Your task to perform on an android device: When is my next meeting? Image 0: 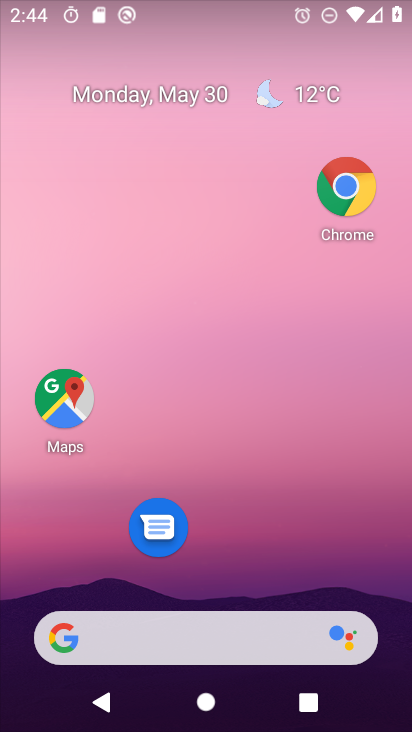
Step 0: drag from (221, 525) to (262, 270)
Your task to perform on an android device: When is my next meeting? Image 1: 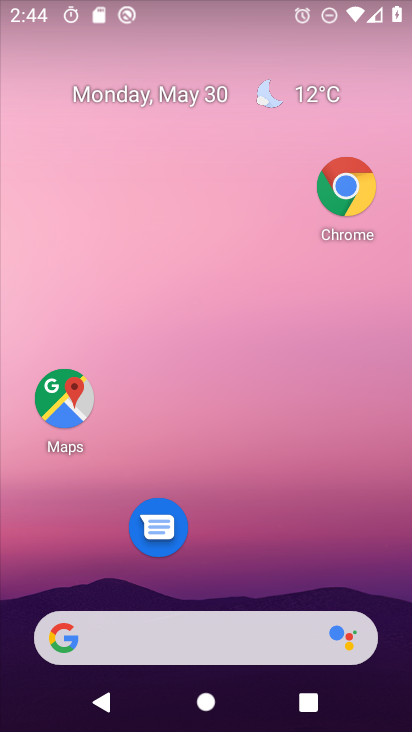
Step 1: drag from (221, 572) to (228, 355)
Your task to perform on an android device: When is my next meeting? Image 2: 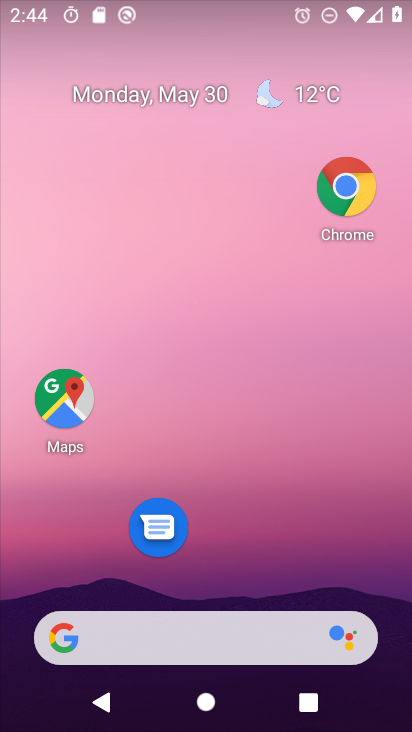
Step 2: drag from (241, 544) to (271, 84)
Your task to perform on an android device: When is my next meeting? Image 3: 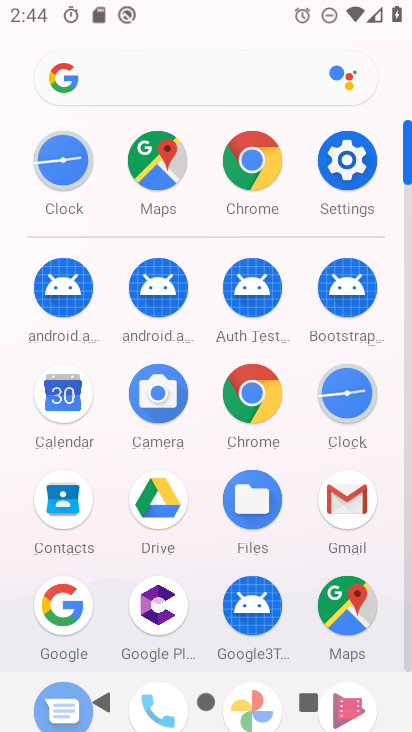
Step 3: click (68, 375)
Your task to perform on an android device: When is my next meeting? Image 4: 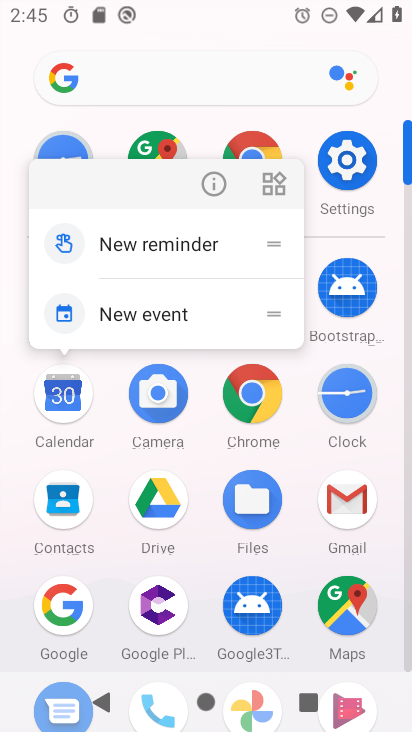
Step 4: click (209, 190)
Your task to perform on an android device: When is my next meeting? Image 5: 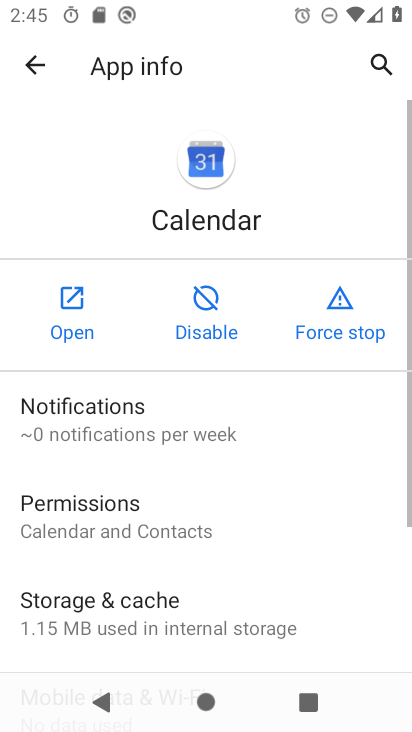
Step 5: click (79, 307)
Your task to perform on an android device: When is my next meeting? Image 6: 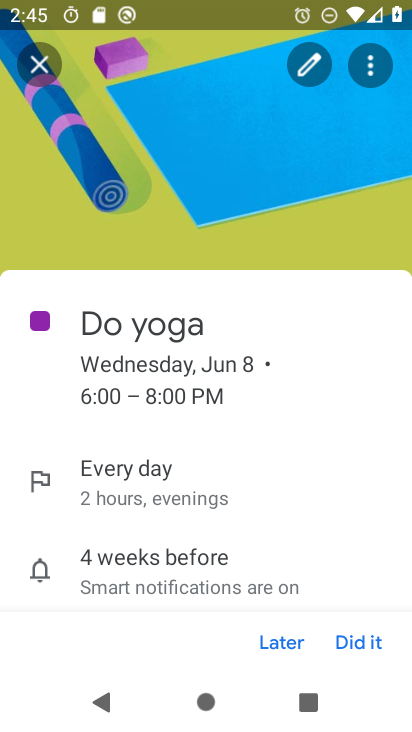
Step 6: click (295, 636)
Your task to perform on an android device: When is my next meeting? Image 7: 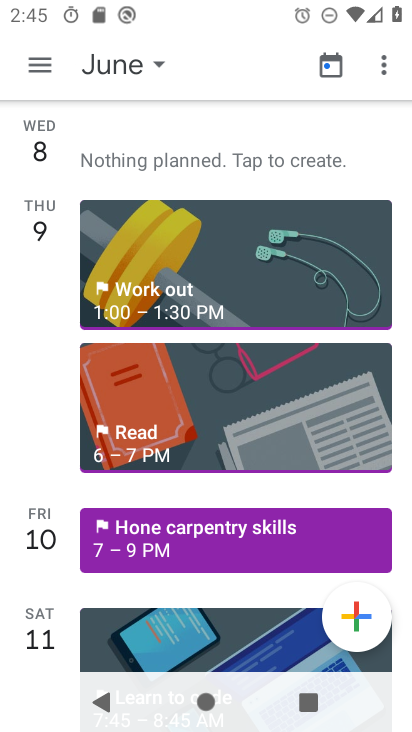
Step 7: click (119, 70)
Your task to perform on an android device: When is my next meeting? Image 8: 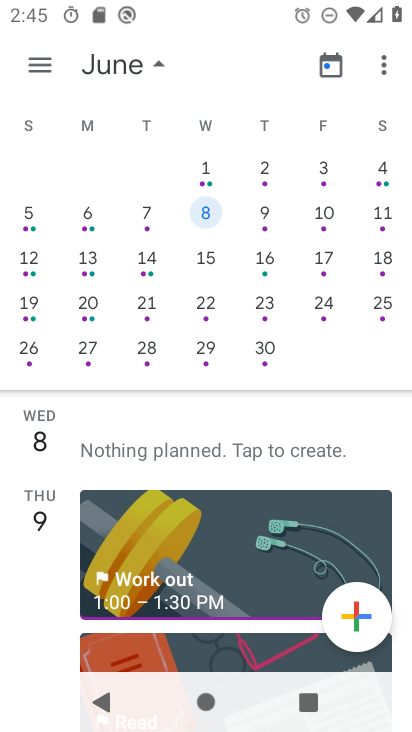
Step 8: drag from (29, 239) to (404, 231)
Your task to perform on an android device: When is my next meeting? Image 9: 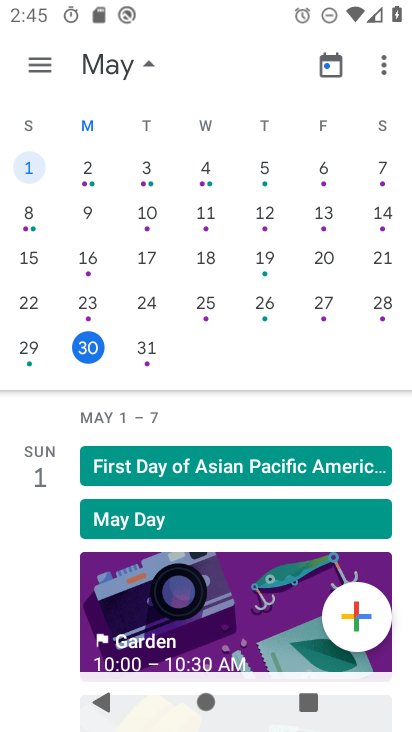
Step 9: click (87, 349)
Your task to perform on an android device: When is my next meeting? Image 10: 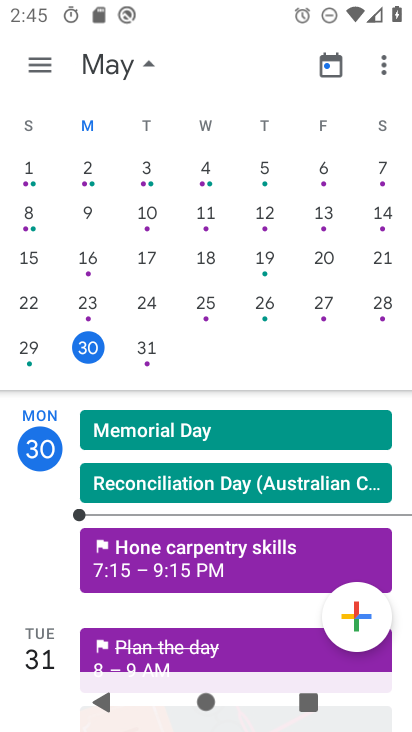
Step 10: task complete